Your task to perform on an android device: check android version Image 0: 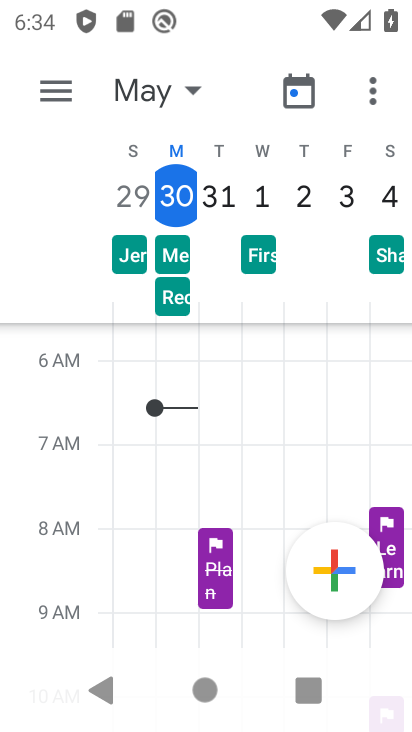
Step 0: press home button
Your task to perform on an android device: check android version Image 1: 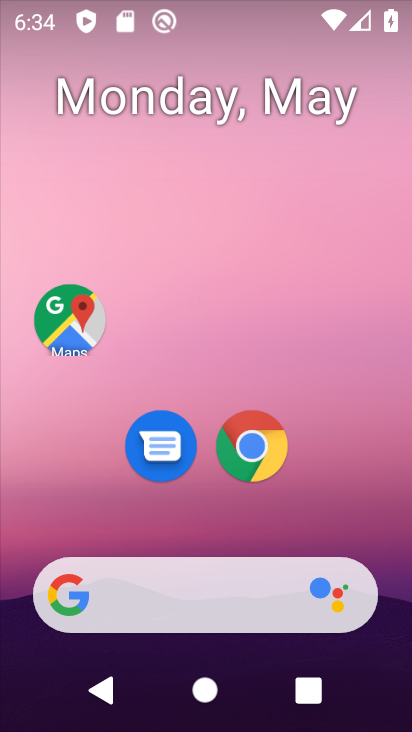
Step 1: drag from (330, 486) to (186, 92)
Your task to perform on an android device: check android version Image 2: 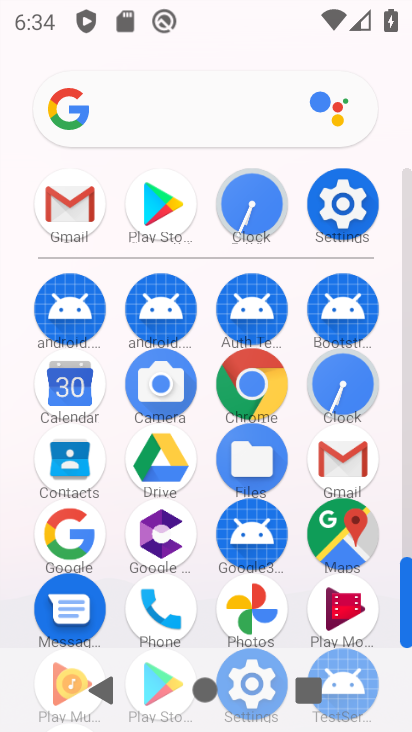
Step 2: click (343, 198)
Your task to perform on an android device: check android version Image 3: 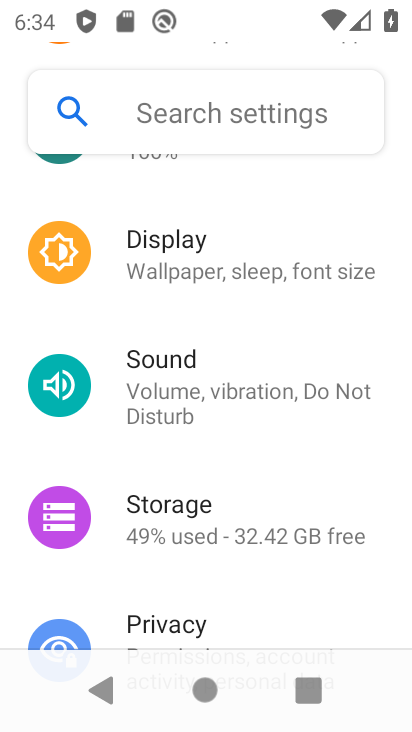
Step 3: drag from (222, 535) to (174, 175)
Your task to perform on an android device: check android version Image 4: 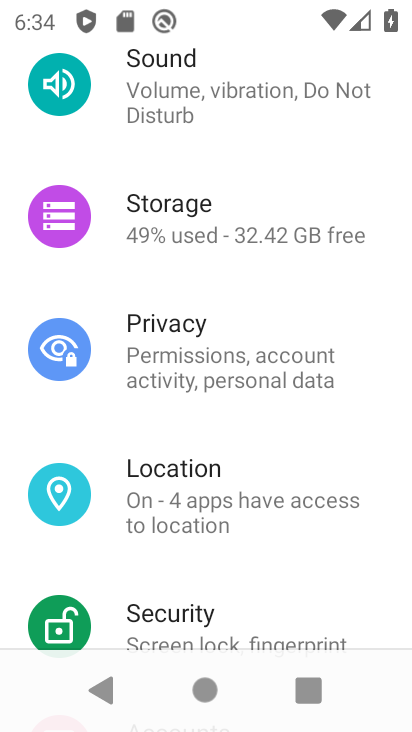
Step 4: drag from (211, 577) to (165, 181)
Your task to perform on an android device: check android version Image 5: 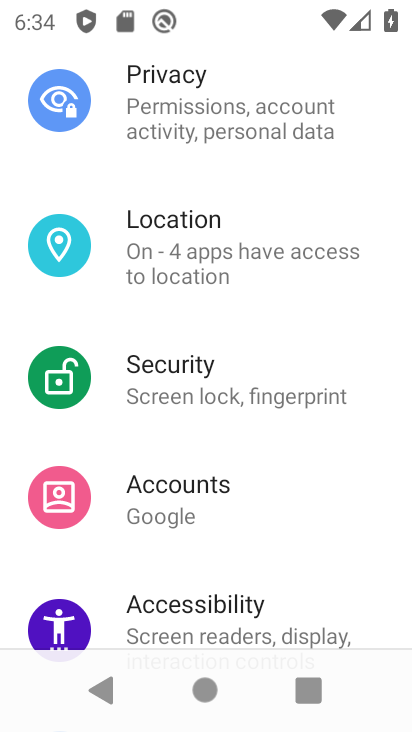
Step 5: drag from (206, 548) to (162, 189)
Your task to perform on an android device: check android version Image 6: 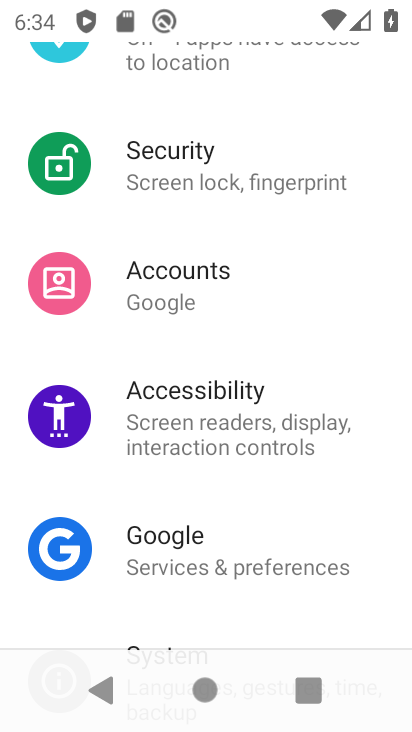
Step 6: drag from (191, 490) to (188, 168)
Your task to perform on an android device: check android version Image 7: 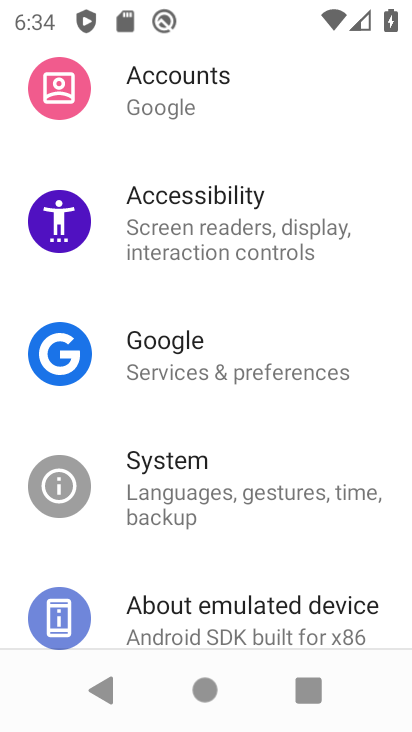
Step 7: drag from (176, 537) to (141, 254)
Your task to perform on an android device: check android version Image 8: 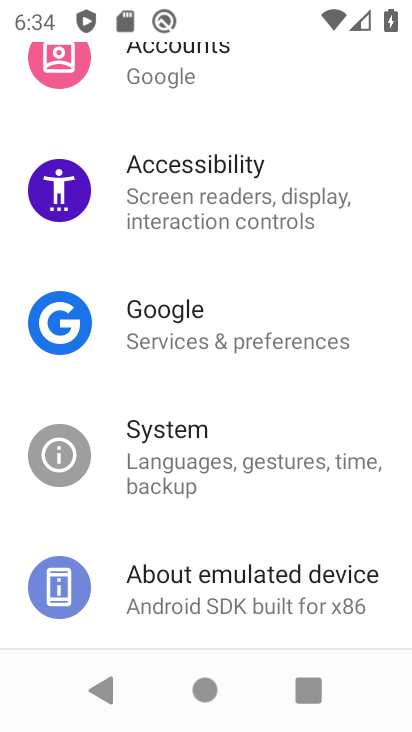
Step 8: click (172, 611)
Your task to perform on an android device: check android version Image 9: 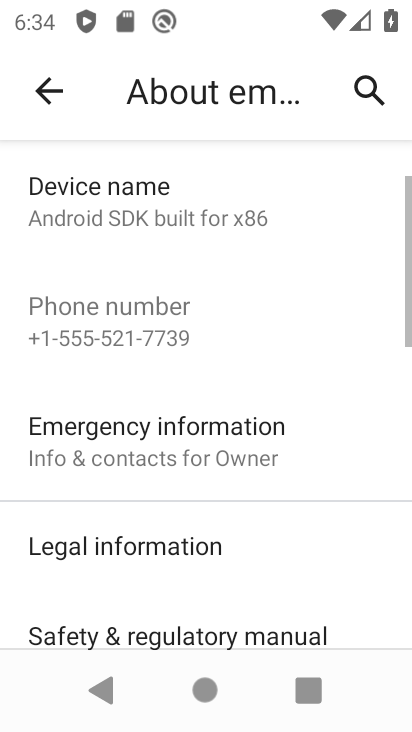
Step 9: drag from (208, 490) to (166, 146)
Your task to perform on an android device: check android version Image 10: 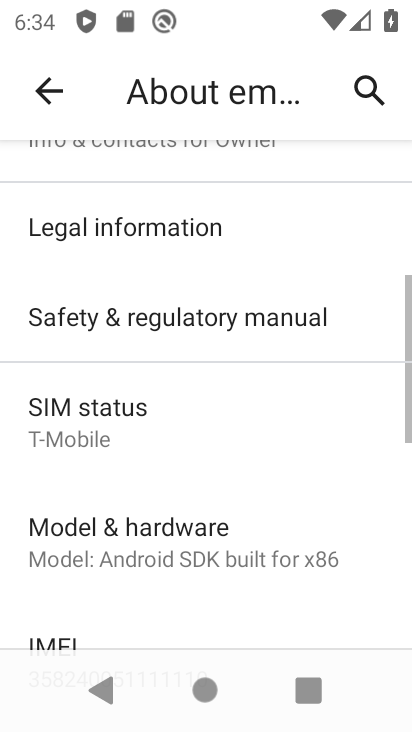
Step 10: drag from (168, 462) to (131, 149)
Your task to perform on an android device: check android version Image 11: 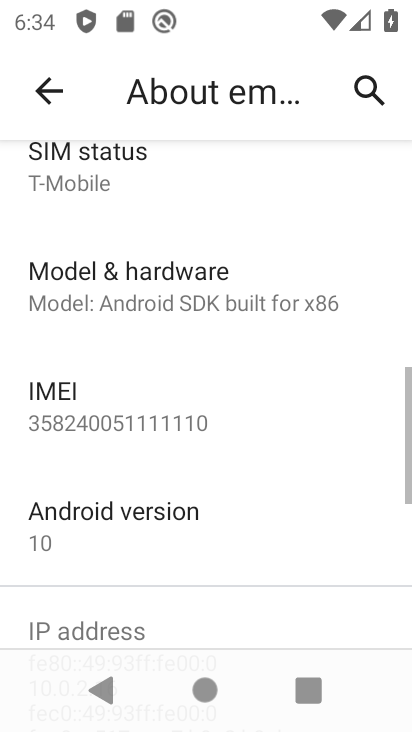
Step 11: click (119, 520)
Your task to perform on an android device: check android version Image 12: 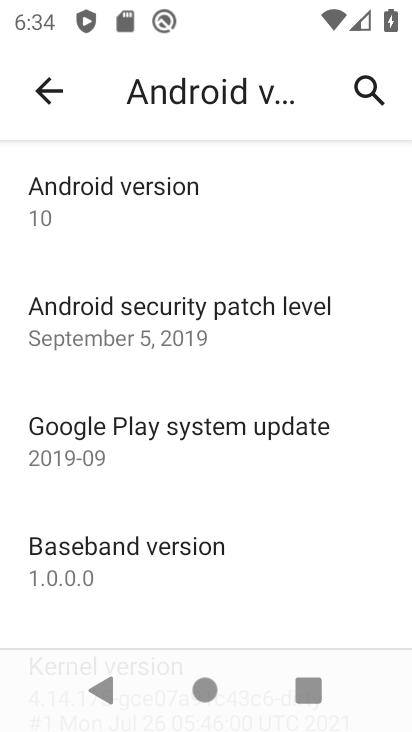
Step 12: task complete